Your task to perform on an android device: check battery use Image 0: 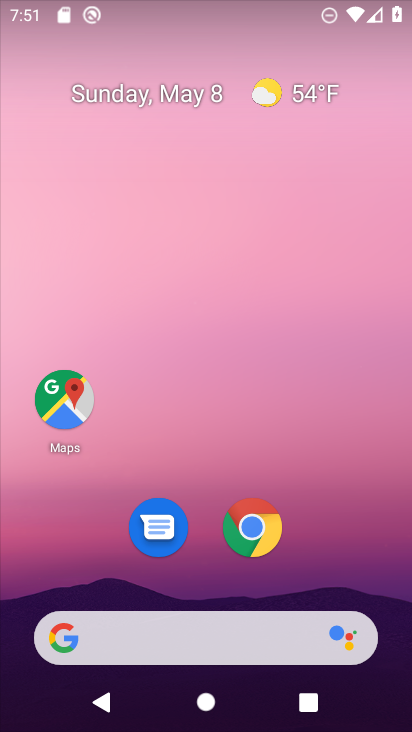
Step 0: drag from (358, 561) to (367, 55)
Your task to perform on an android device: check battery use Image 1: 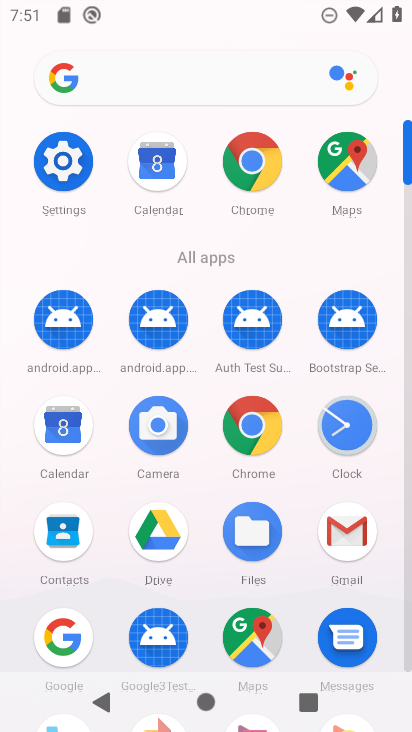
Step 1: click (76, 155)
Your task to perform on an android device: check battery use Image 2: 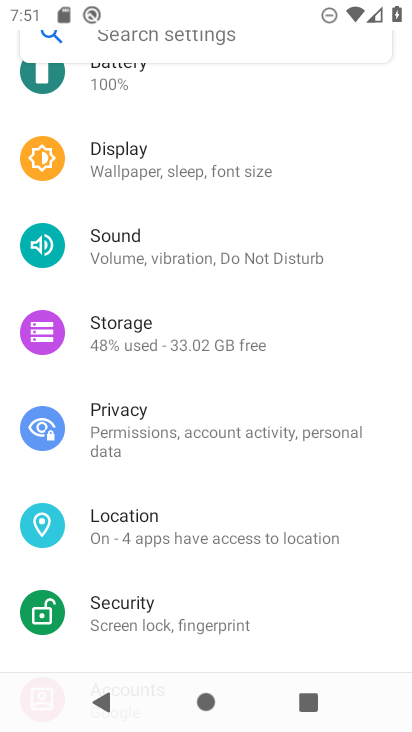
Step 2: drag from (254, 184) to (211, 556)
Your task to perform on an android device: check battery use Image 3: 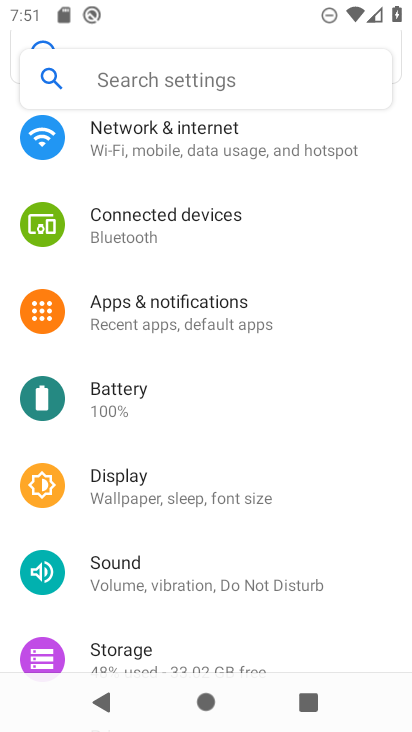
Step 3: click (119, 404)
Your task to perform on an android device: check battery use Image 4: 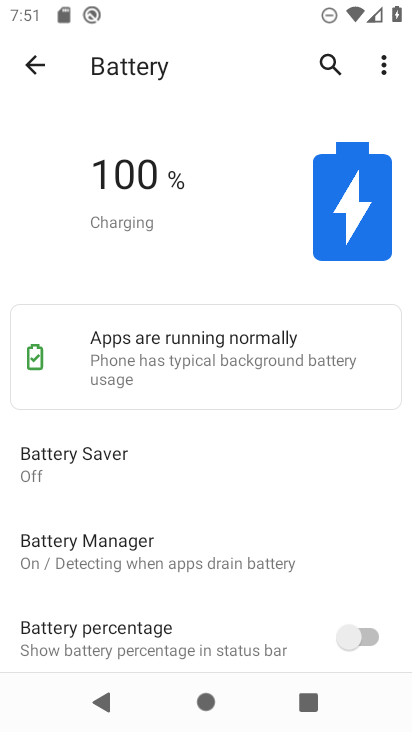
Step 4: click (386, 61)
Your task to perform on an android device: check battery use Image 5: 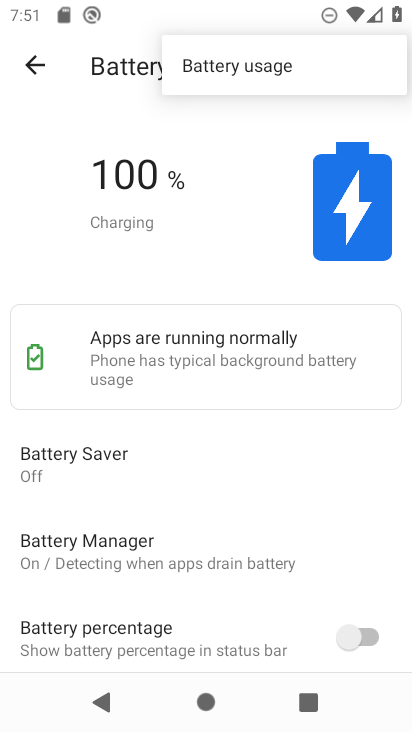
Step 5: click (291, 54)
Your task to perform on an android device: check battery use Image 6: 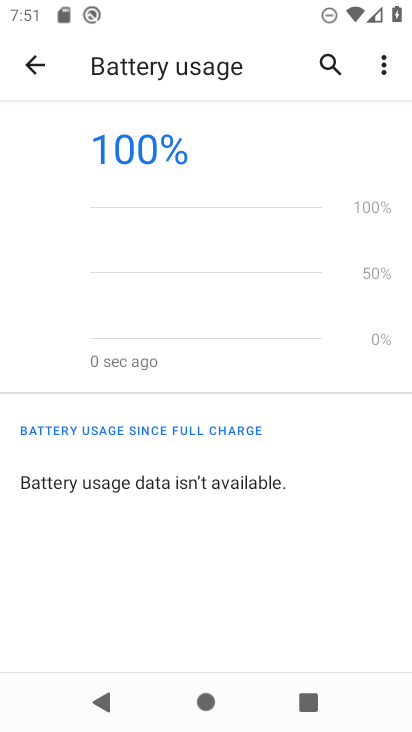
Step 6: task complete